Your task to perform on an android device: toggle priority inbox in the gmail app Image 0: 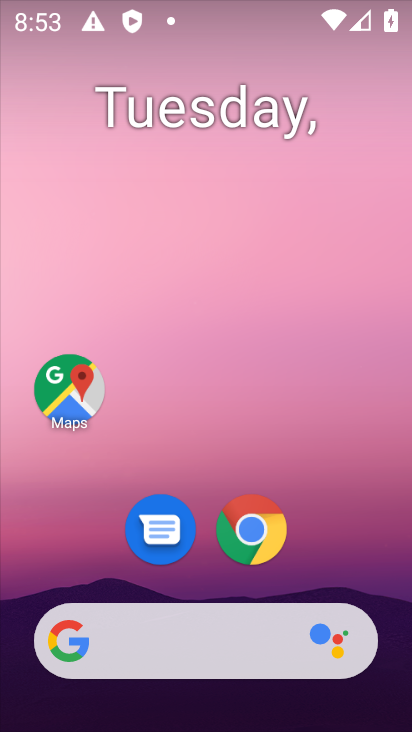
Step 0: drag from (193, 575) to (296, 278)
Your task to perform on an android device: toggle priority inbox in the gmail app Image 1: 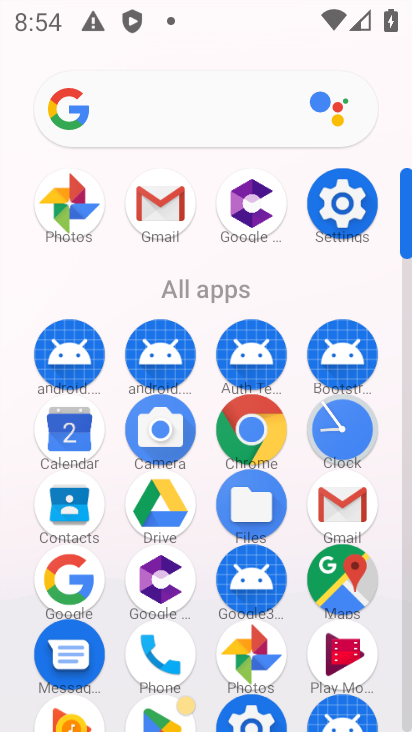
Step 1: click (354, 505)
Your task to perform on an android device: toggle priority inbox in the gmail app Image 2: 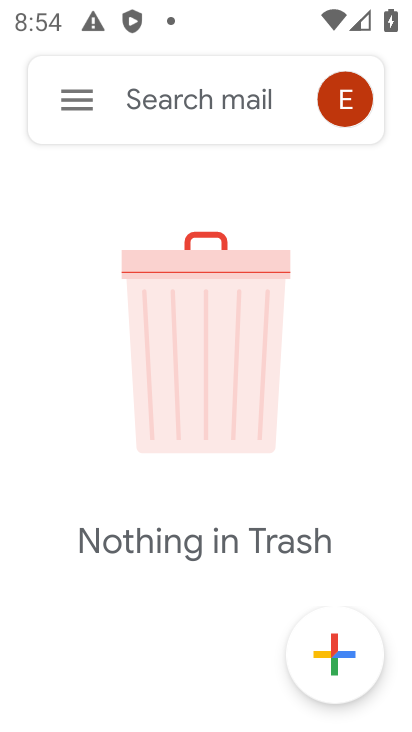
Step 2: click (72, 99)
Your task to perform on an android device: toggle priority inbox in the gmail app Image 3: 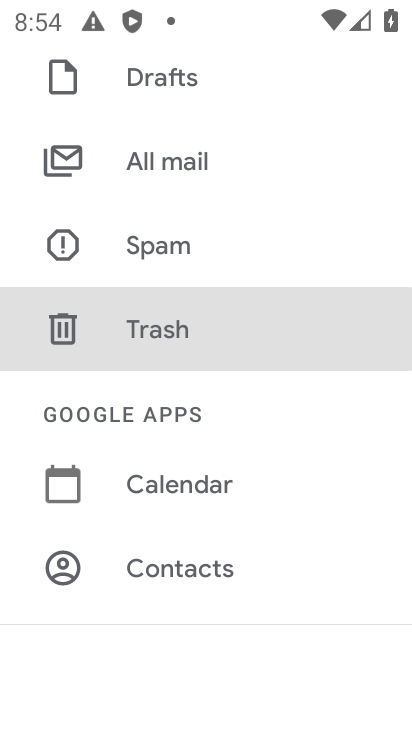
Step 3: drag from (221, 587) to (276, 106)
Your task to perform on an android device: toggle priority inbox in the gmail app Image 4: 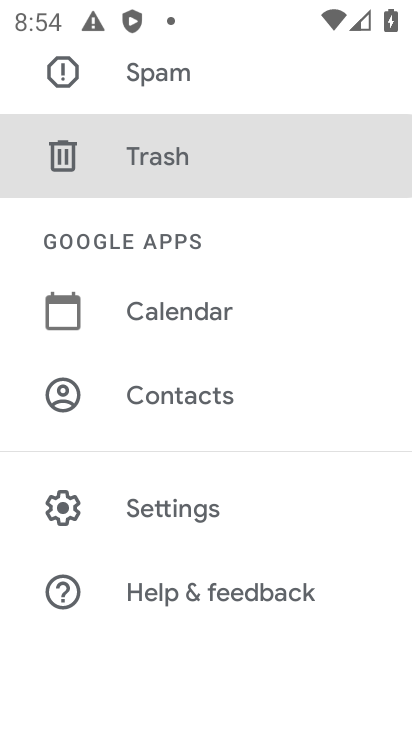
Step 4: click (169, 507)
Your task to perform on an android device: toggle priority inbox in the gmail app Image 5: 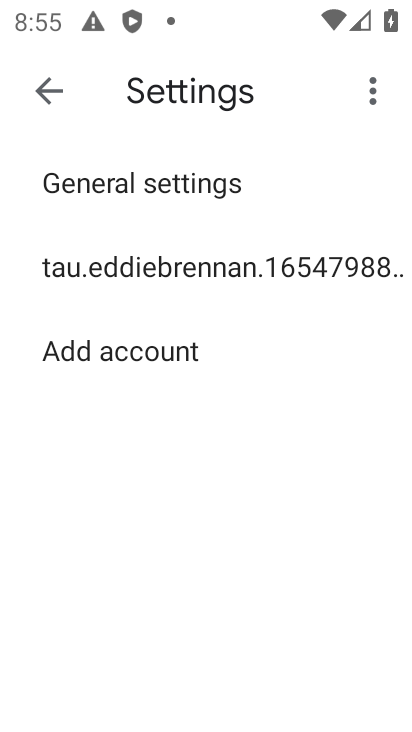
Step 5: drag from (205, 609) to (258, 277)
Your task to perform on an android device: toggle priority inbox in the gmail app Image 6: 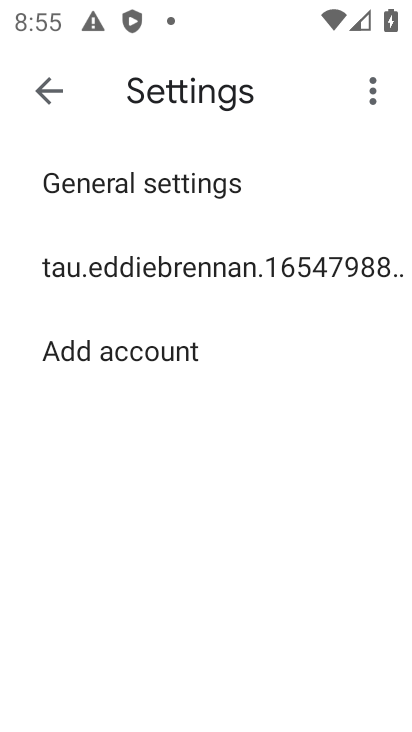
Step 6: drag from (259, 156) to (226, 596)
Your task to perform on an android device: toggle priority inbox in the gmail app Image 7: 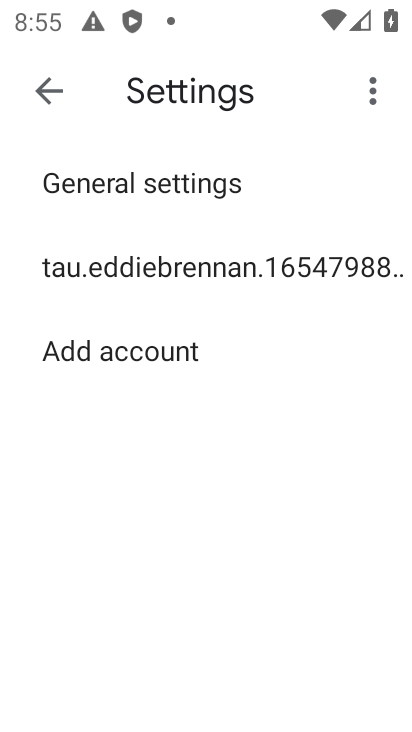
Step 7: drag from (202, 669) to (251, 419)
Your task to perform on an android device: toggle priority inbox in the gmail app Image 8: 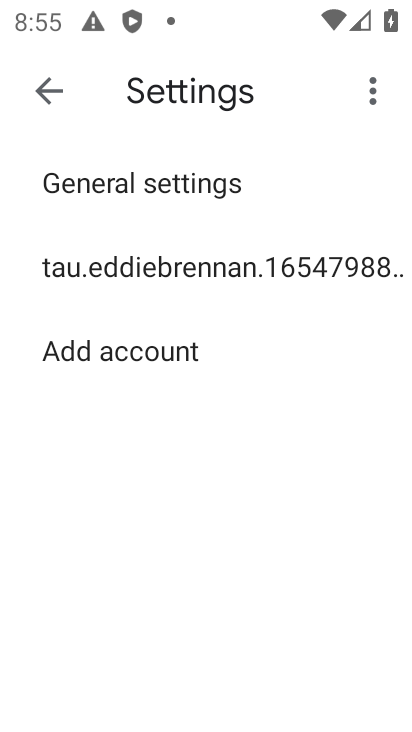
Step 8: click (162, 277)
Your task to perform on an android device: toggle priority inbox in the gmail app Image 9: 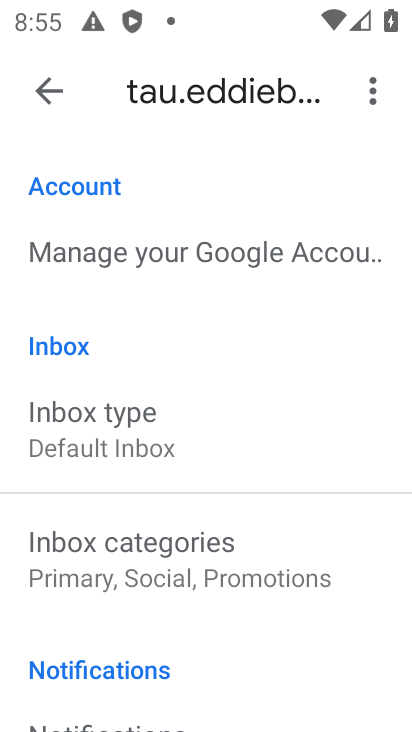
Step 9: click (124, 434)
Your task to perform on an android device: toggle priority inbox in the gmail app Image 10: 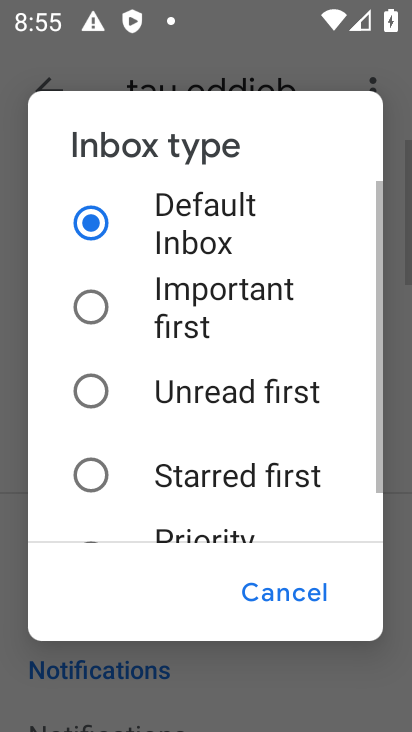
Step 10: drag from (163, 427) to (201, 50)
Your task to perform on an android device: toggle priority inbox in the gmail app Image 11: 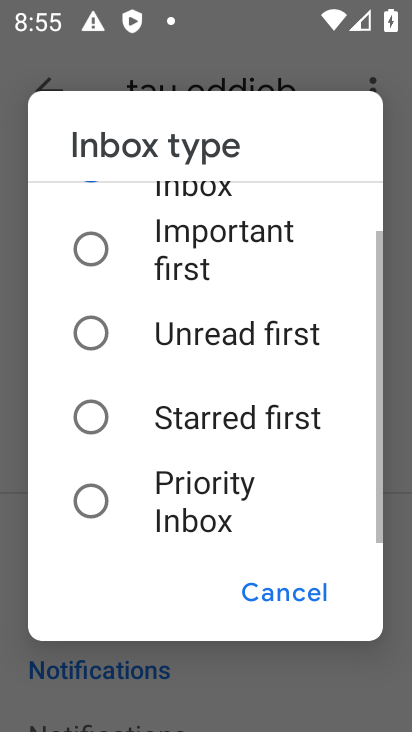
Step 11: click (115, 489)
Your task to perform on an android device: toggle priority inbox in the gmail app Image 12: 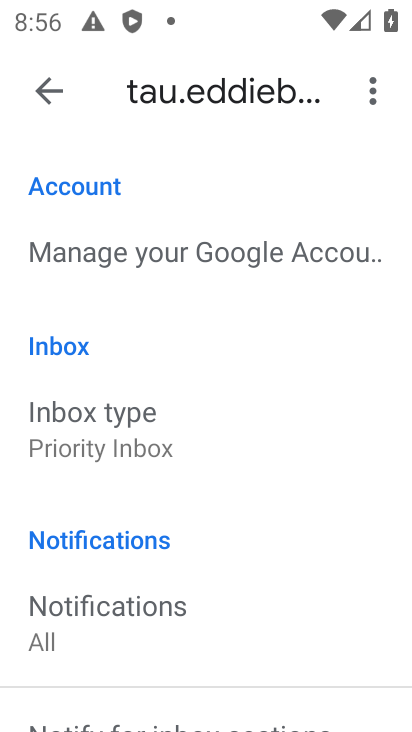
Step 12: task complete